Your task to perform on an android device: Show me some nice wallpapers for my laptop Image 0: 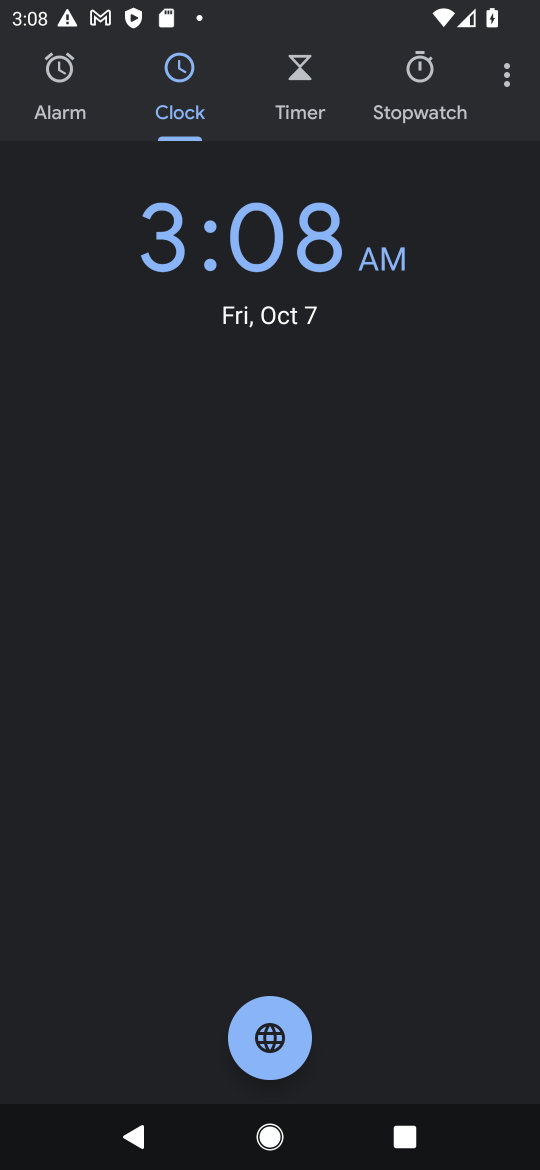
Step 0: press home button
Your task to perform on an android device: Show me some nice wallpapers for my laptop Image 1: 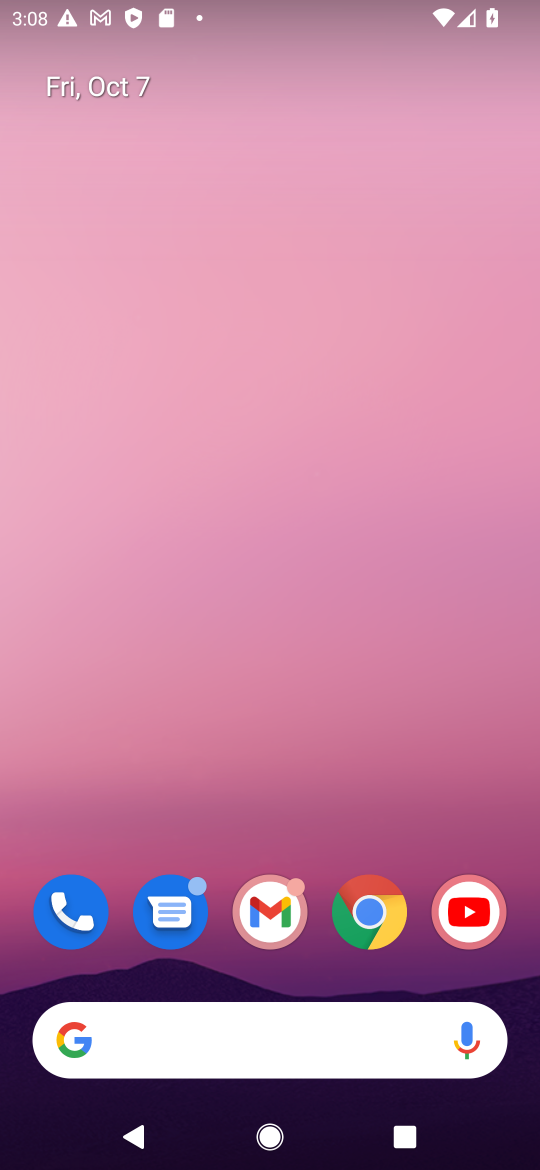
Step 1: drag from (260, 933) to (271, 328)
Your task to perform on an android device: Show me some nice wallpapers for my laptop Image 2: 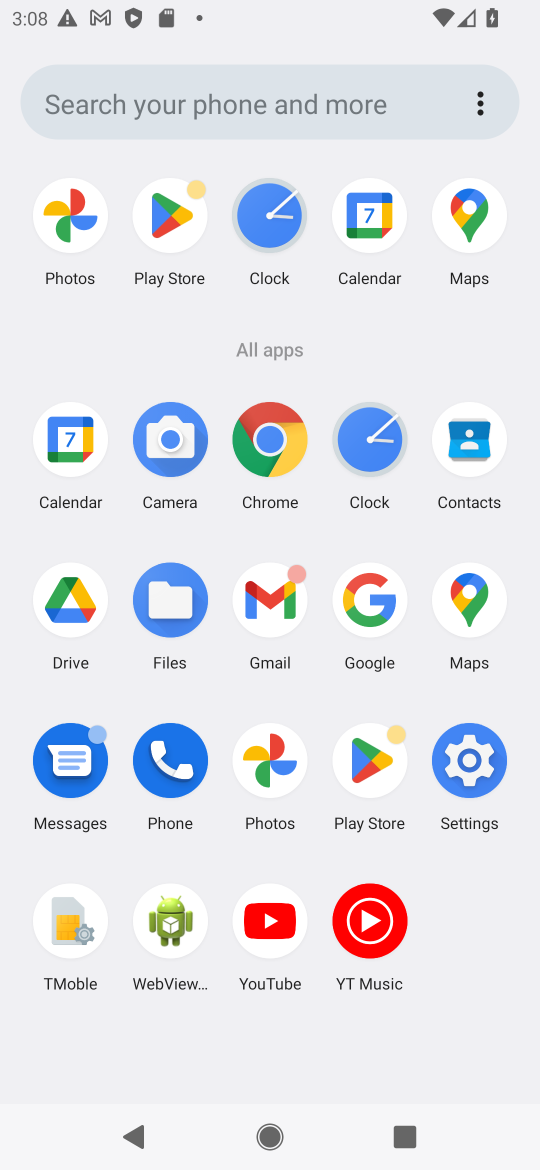
Step 2: click (378, 591)
Your task to perform on an android device: Show me some nice wallpapers for my laptop Image 3: 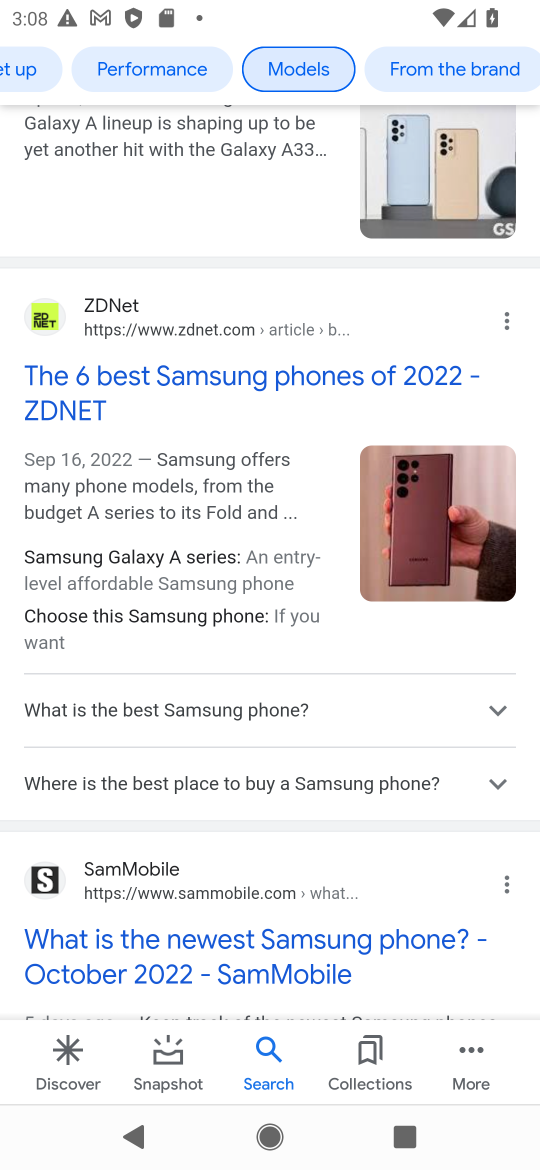
Step 3: drag from (233, 223) to (210, 966)
Your task to perform on an android device: Show me some nice wallpapers for my laptop Image 4: 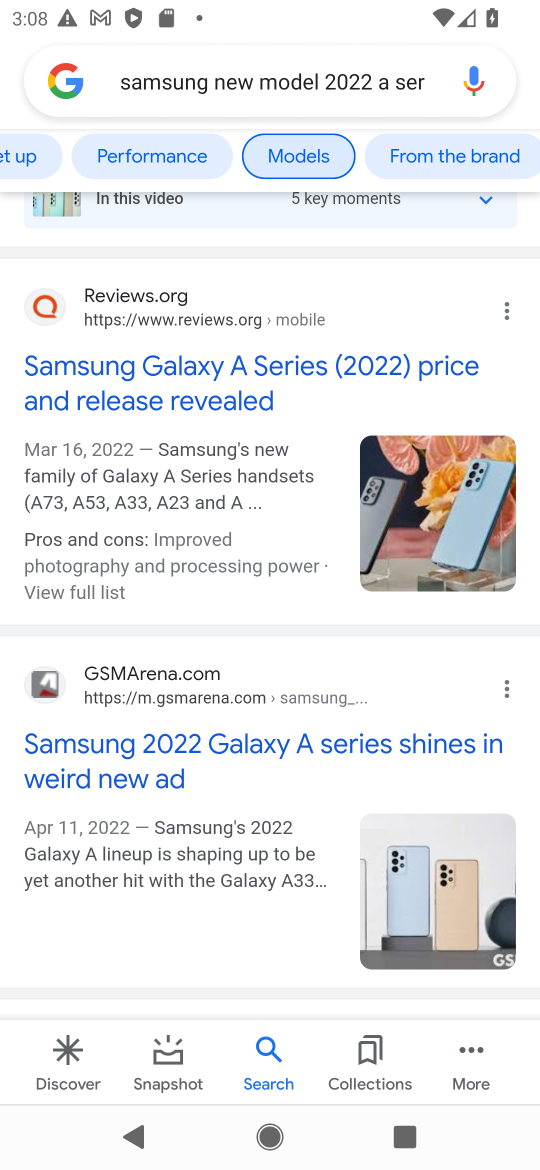
Step 4: click (397, 64)
Your task to perform on an android device: Show me some nice wallpapers for my laptop Image 5: 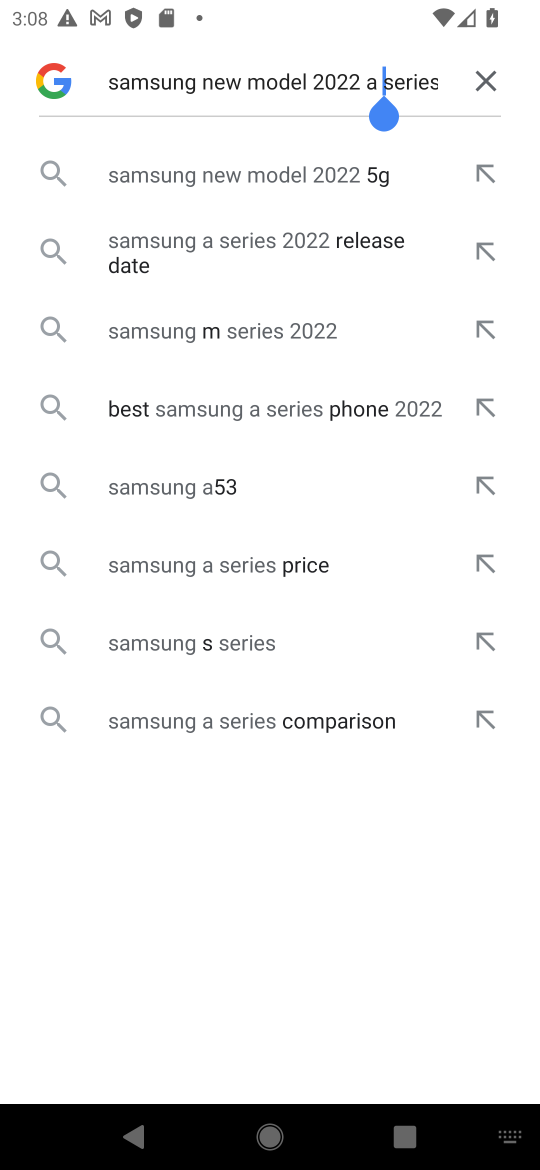
Step 5: click (487, 69)
Your task to perform on an android device: Show me some nice wallpapers for my laptop Image 6: 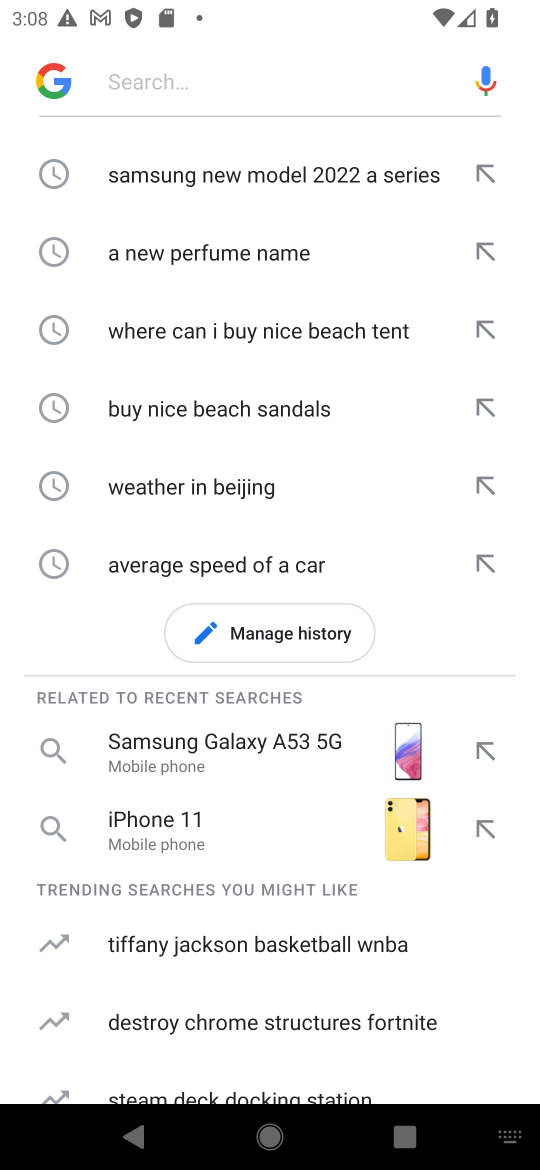
Step 6: click (277, 66)
Your task to perform on an android device: Show me some nice wallpapers for my laptop Image 7: 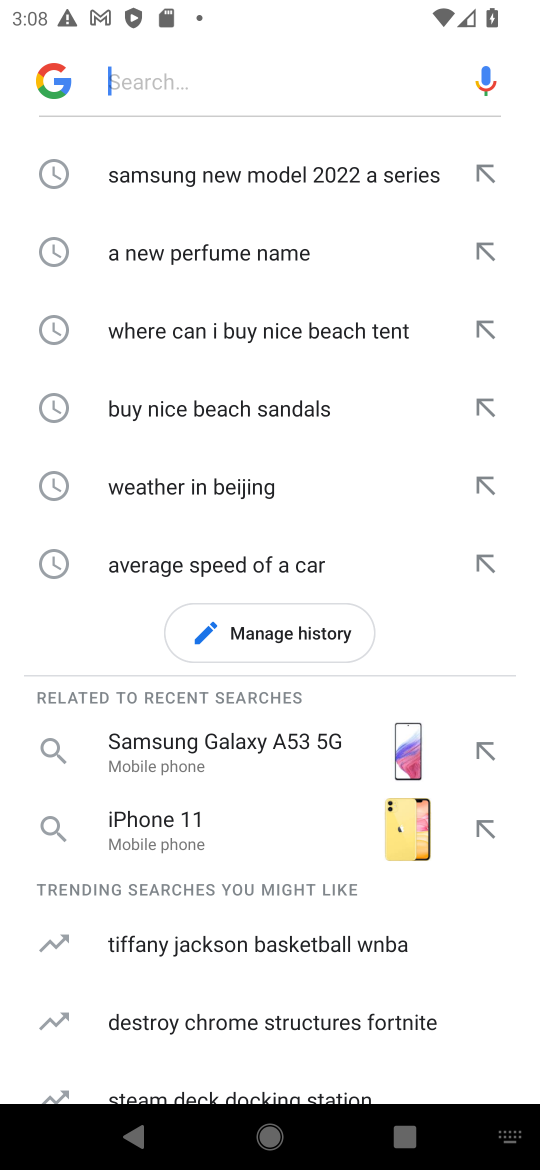
Step 7: type "Show me some nice wallpapers for my laptop "
Your task to perform on an android device: Show me some nice wallpapers for my laptop Image 8: 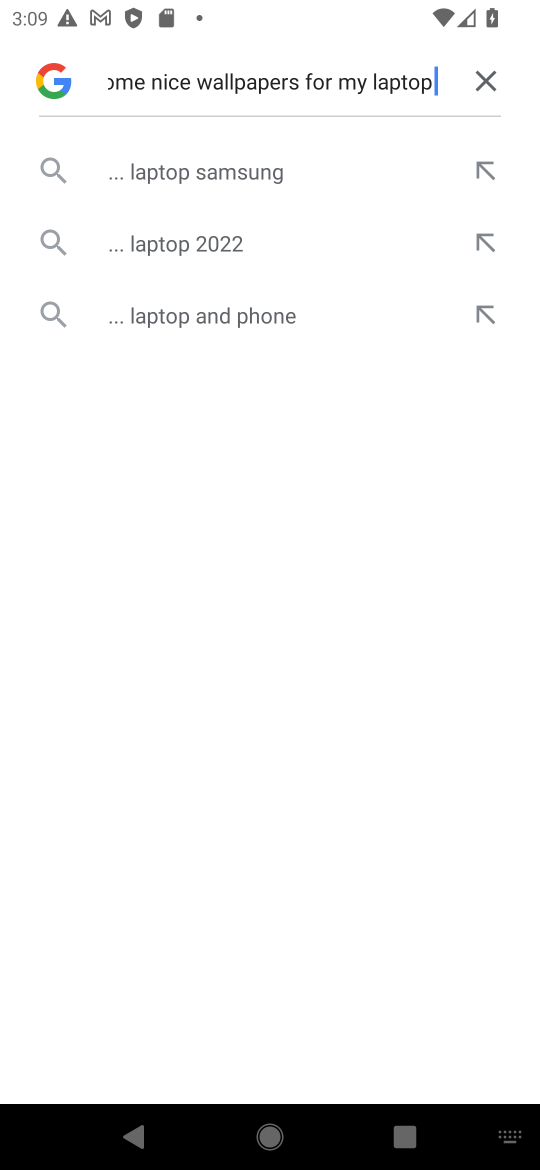
Step 8: click (183, 160)
Your task to perform on an android device: Show me some nice wallpapers for my laptop Image 9: 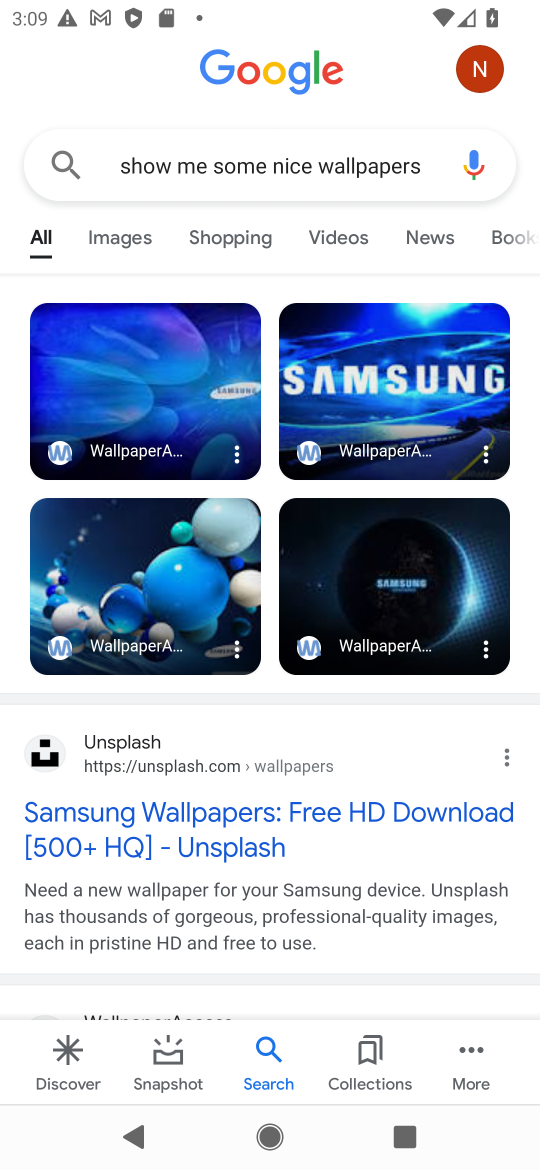
Step 9: click (381, 163)
Your task to perform on an android device: Show me some nice wallpapers for my laptop Image 10: 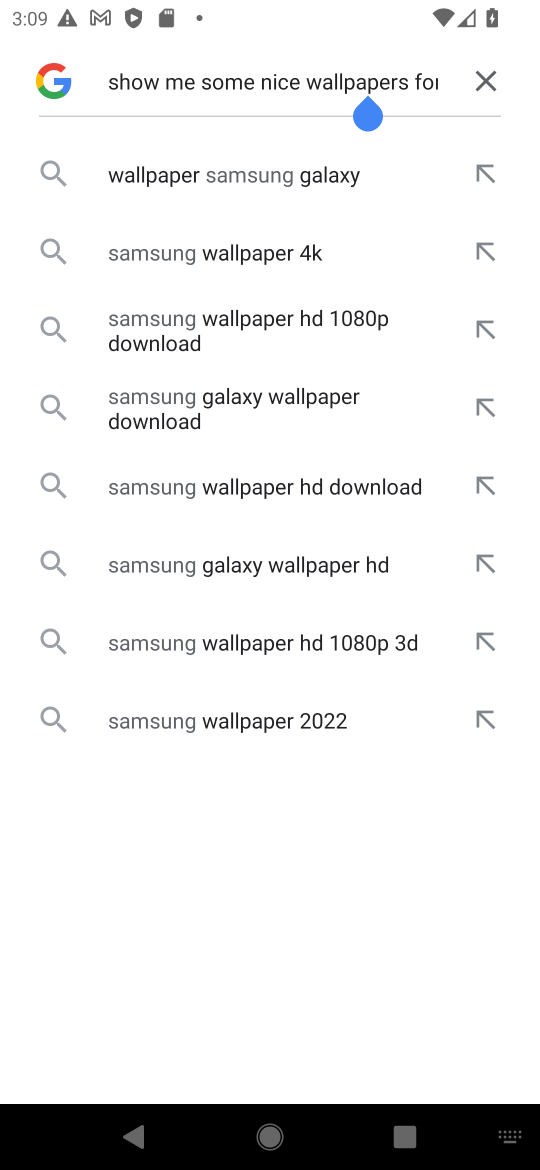
Step 10: click (477, 74)
Your task to perform on an android device: Show me some nice wallpapers for my laptop Image 11: 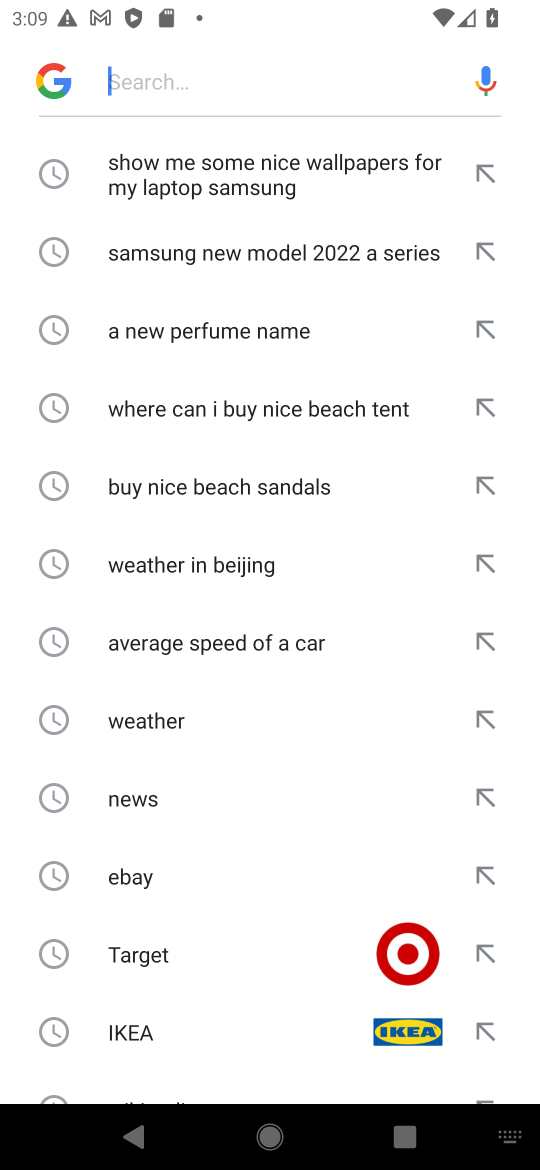
Step 11: click (317, 106)
Your task to perform on an android device: Show me some nice wallpapers for my laptop Image 12: 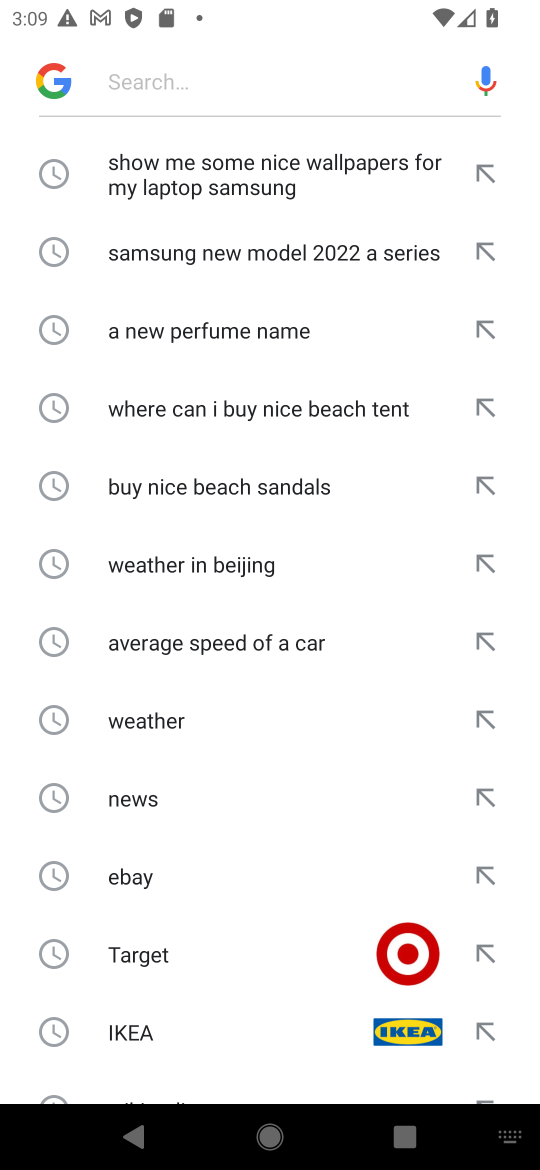
Step 12: click (317, 97)
Your task to perform on an android device: Show me some nice wallpapers for my laptop Image 13: 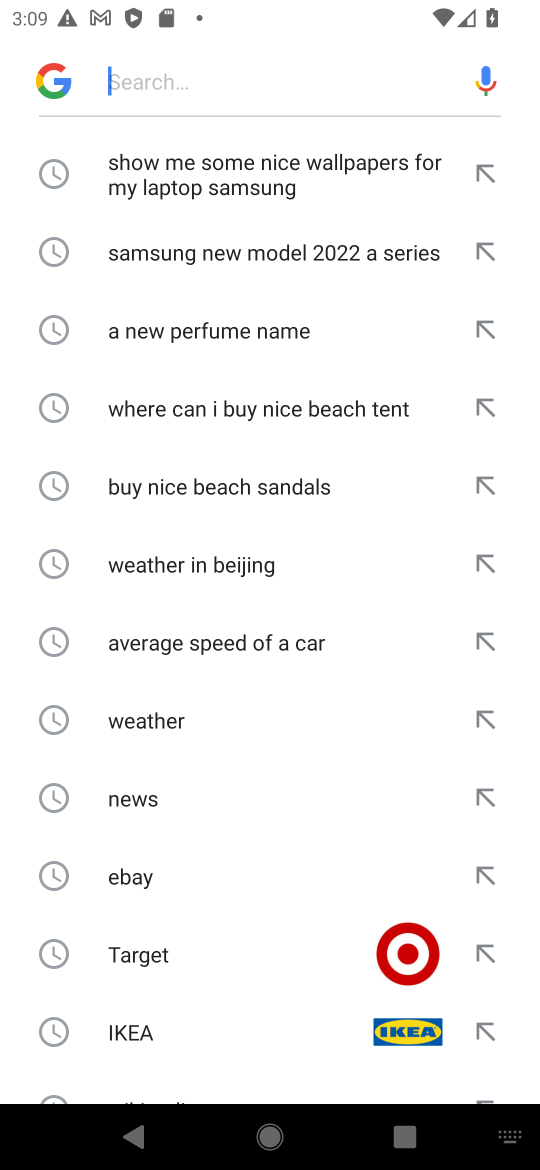
Step 13: type "Show me some nice wallpapers for my laptop "
Your task to perform on an android device: Show me some nice wallpapers for my laptop Image 14: 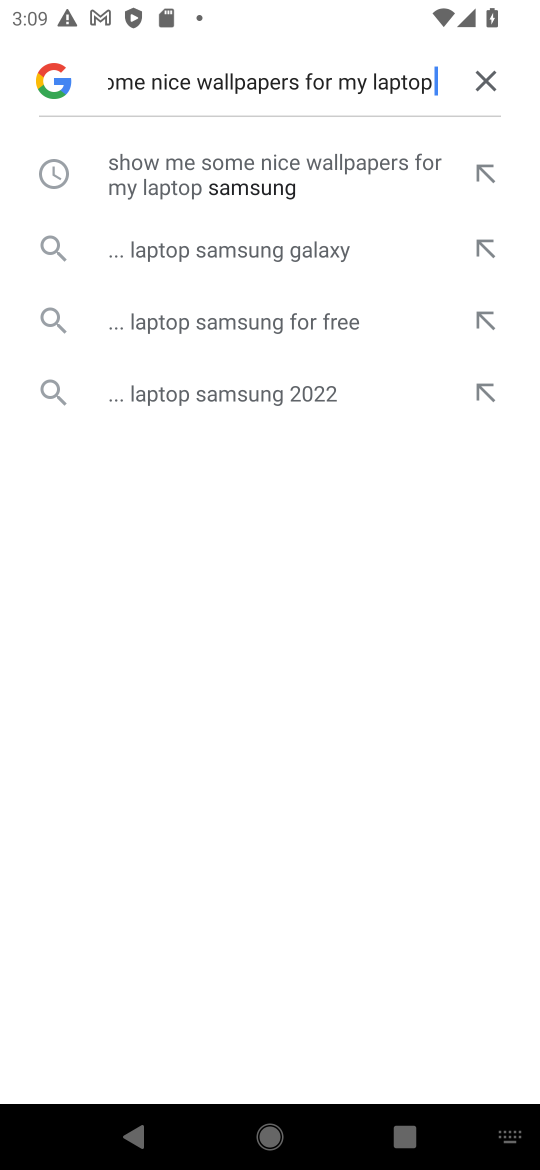
Step 14: click (416, 77)
Your task to perform on an android device: Show me some nice wallpapers for my laptop Image 15: 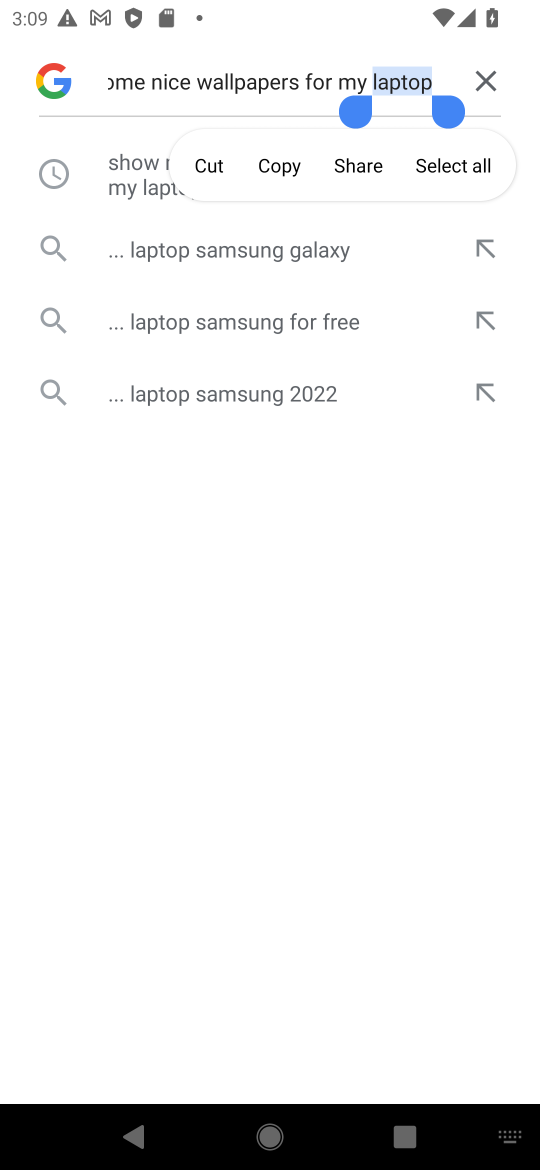
Step 15: click (536, 95)
Your task to perform on an android device: Show me some nice wallpapers for my laptop Image 16: 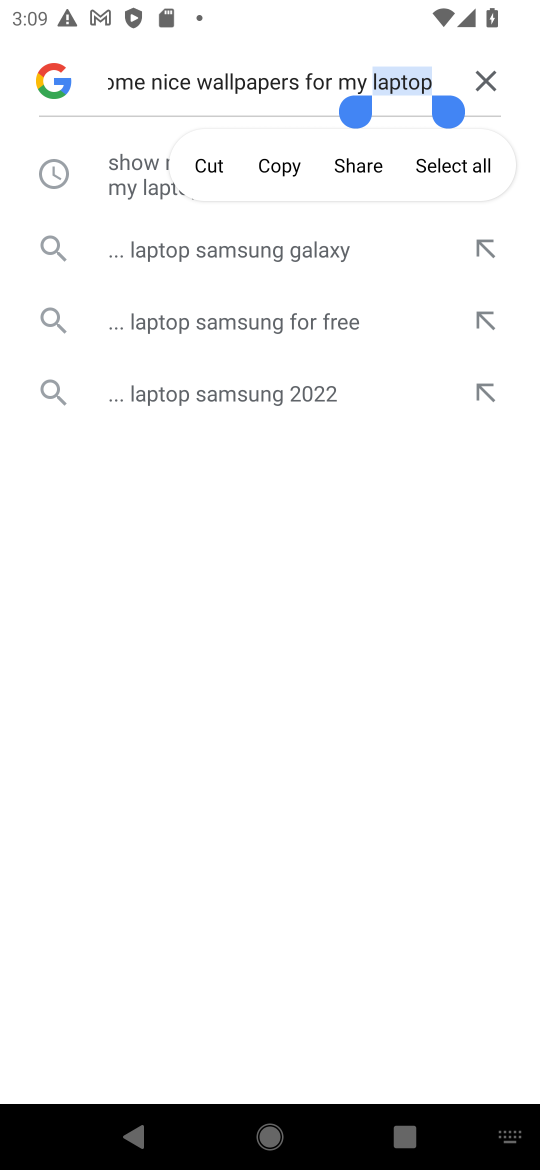
Step 16: click (286, 64)
Your task to perform on an android device: Show me some nice wallpapers for my laptop Image 17: 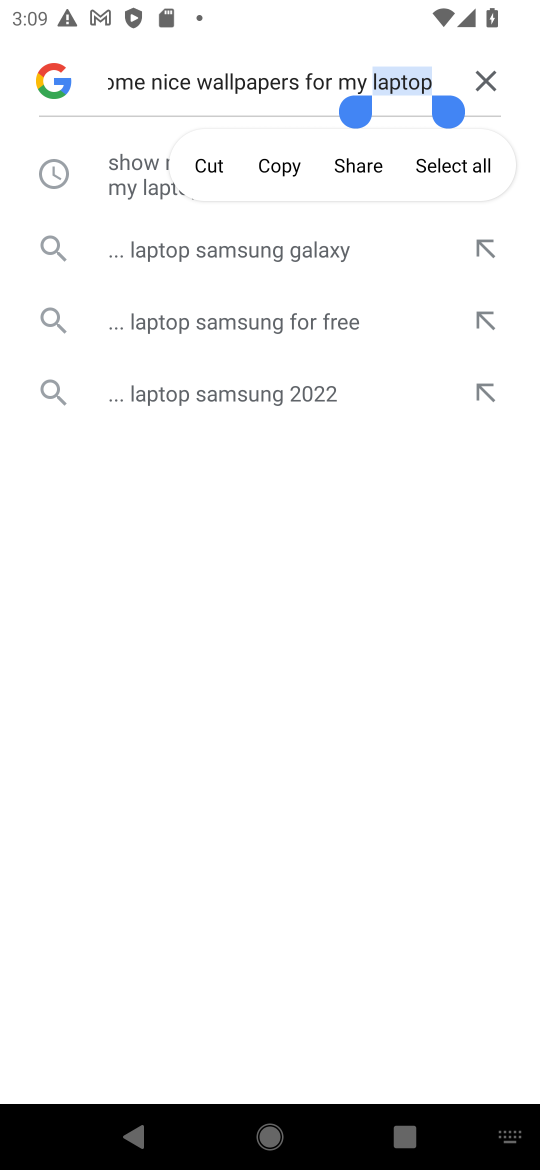
Step 17: click (277, 67)
Your task to perform on an android device: Show me some nice wallpapers for my laptop Image 18: 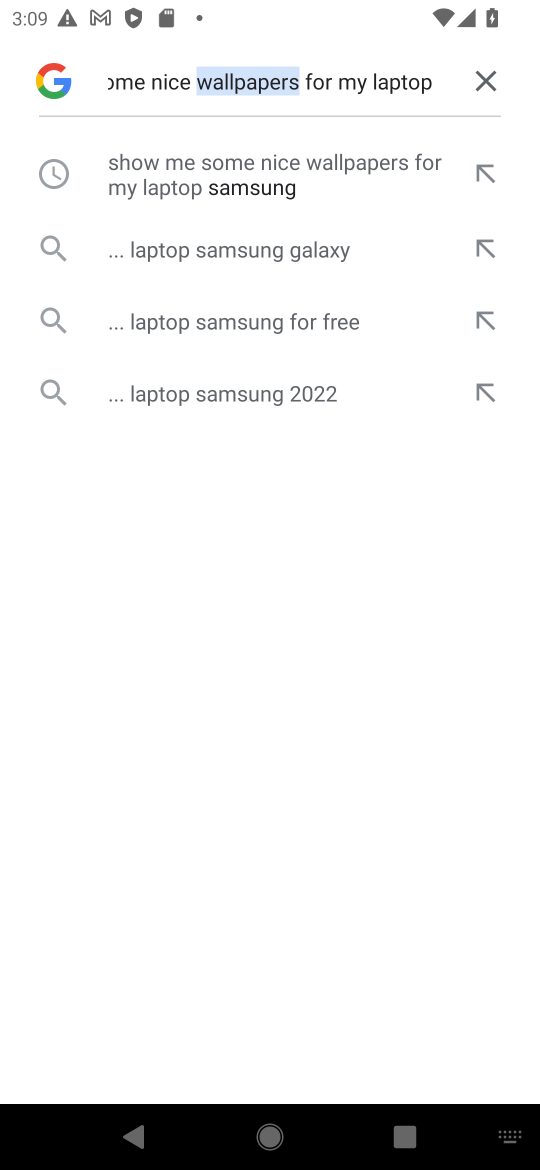
Step 18: click (249, 651)
Your task to perform on an android device: Show me some nice wallpapers for my laptop Image 19: 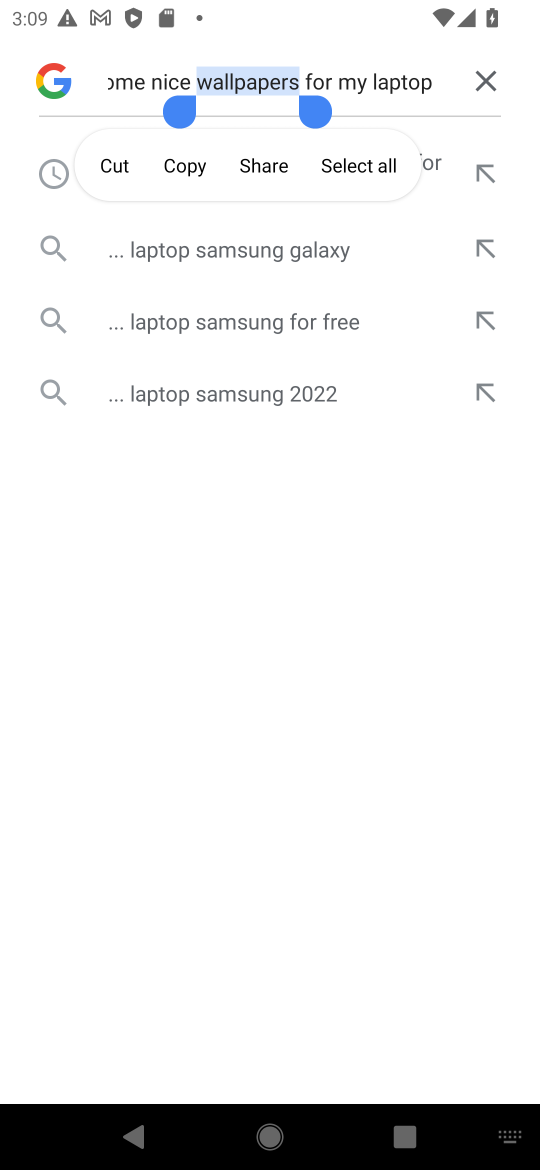
Step 19: click (464, 85)
Your task to perform on an android device: Show me some nice wallpapers for my laptop Image 20: 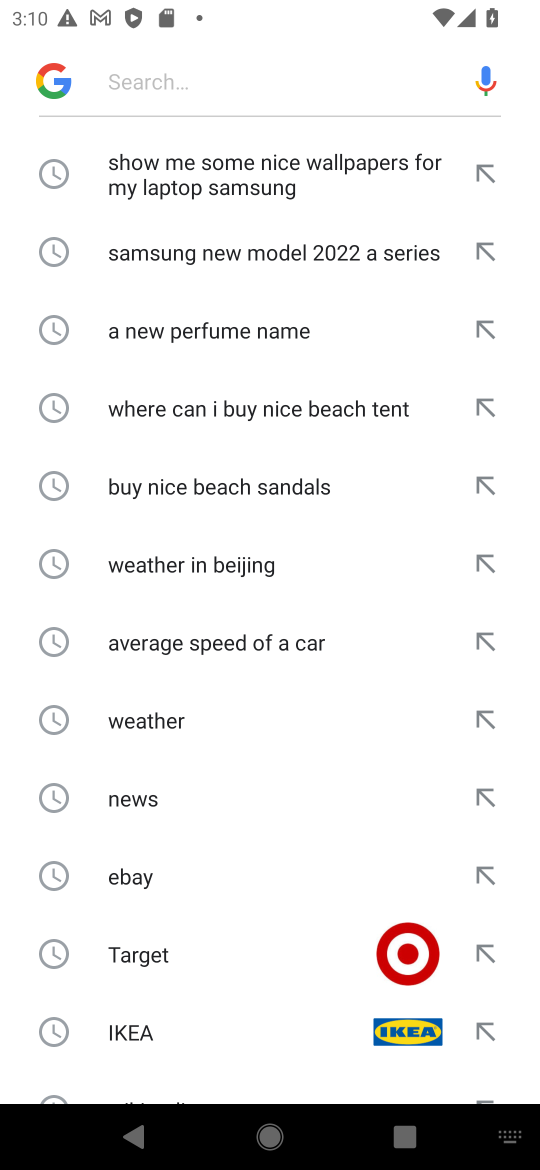
Step 20: click (228, 36)
Your task to perform on an android device: Show me some nice wallpapers for my laptop Image 21: 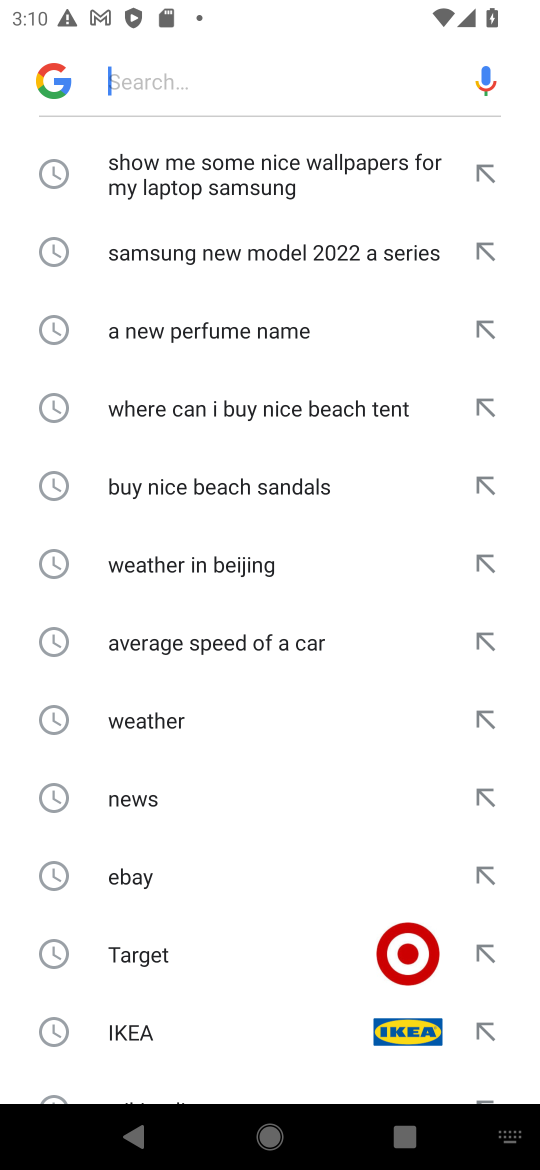
Step 21: type " nice wallpapers for my laptop "
Your task to perform on an android device: Show me some nice wallpapers for my laptop Image 22: 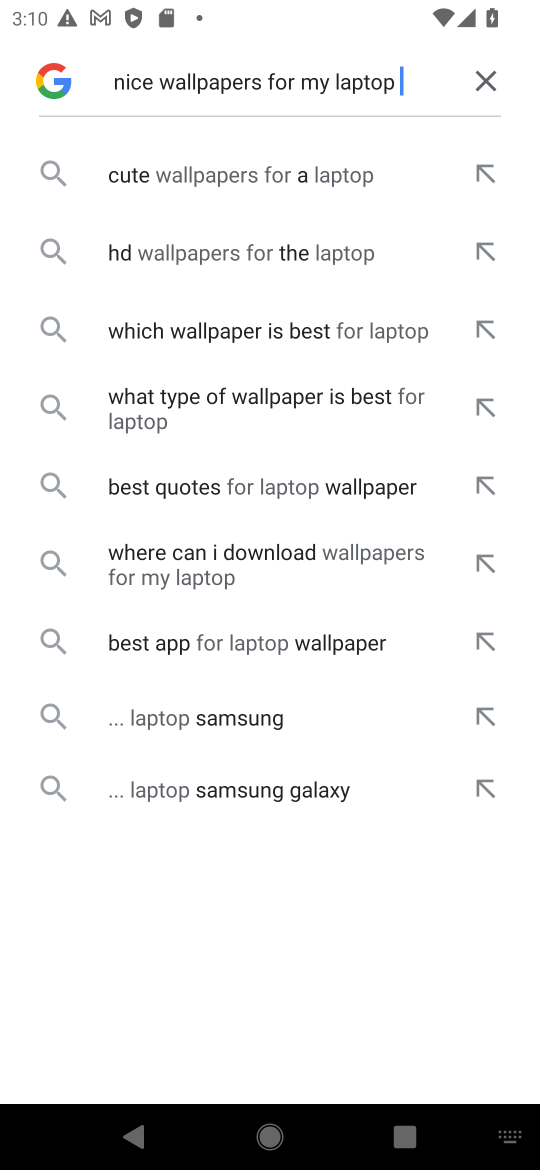
Step 22: click (230, 181)
Your task to perform on an android device: Show me some nice wallpapers for my laptop Image 23: 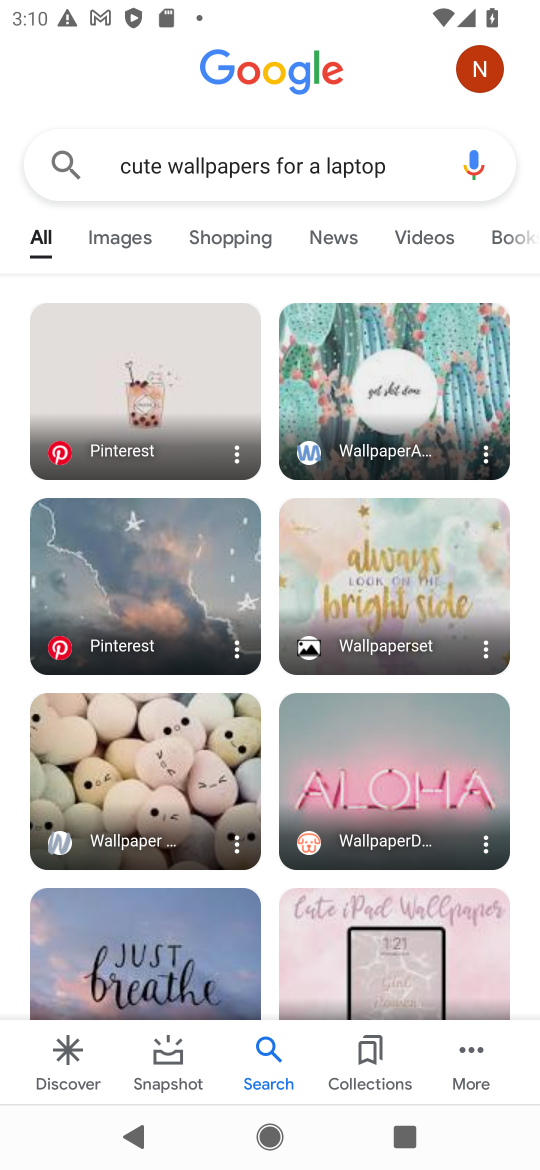
Step 23: task complete